Your task to perform on an android device: find photos in the google photos app Image 0: 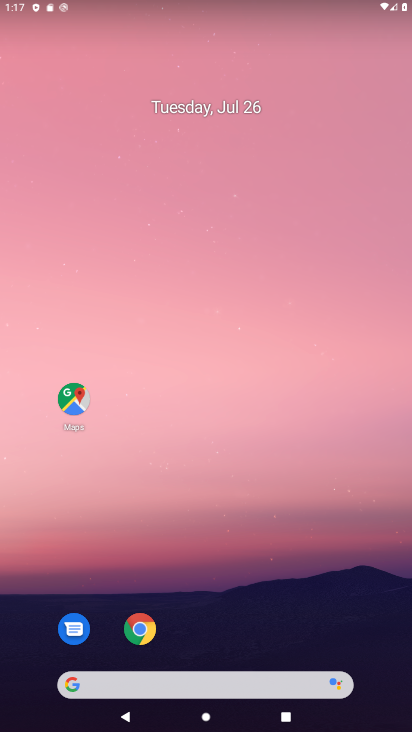
Step 0: drag from (215, 675) to (322, 15)
Your task to perform on an android device: find photos in the google photos app Image 1: 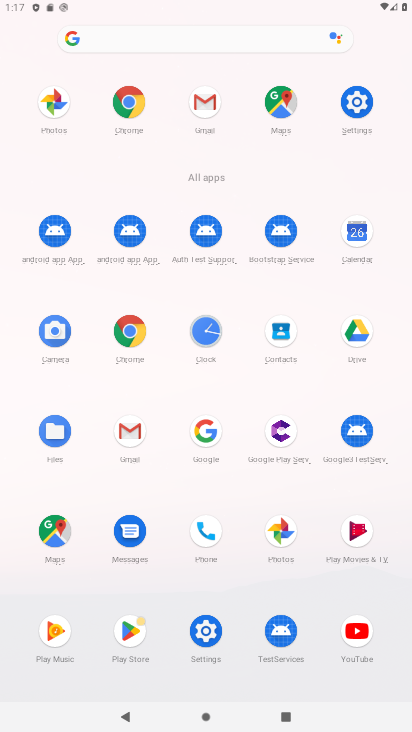
Step 1: click (291, 532)
Your task to perform on an android device: find photos in the google photos app Image 2: 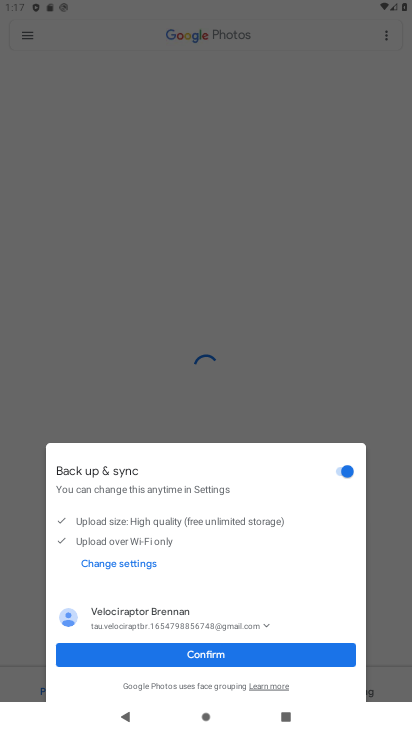
Step 2: click (256, 661)
Your task to perform on an android device: find photos in the google photos app Image 3: 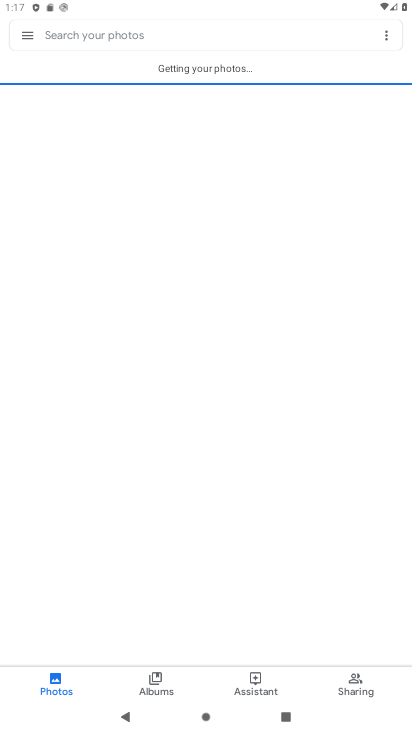
Step 3: task complete